Your task to perform on an android device: Open eBay Image 0: 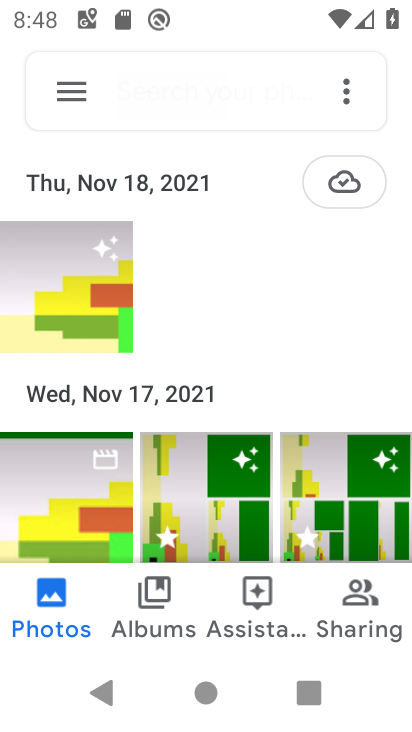
Step 0: press home button
Your task to perform on an android device: Open eBay Image 1: 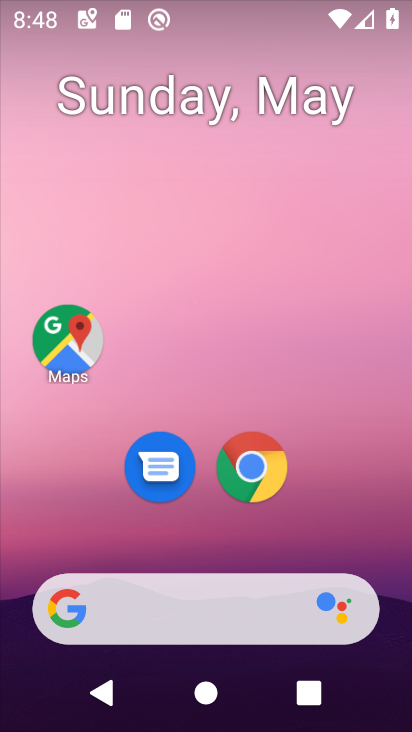
Step 1: drag from (392, 527) to (390, 117)
Your task to perform on an android device: Open eBay Image 2: 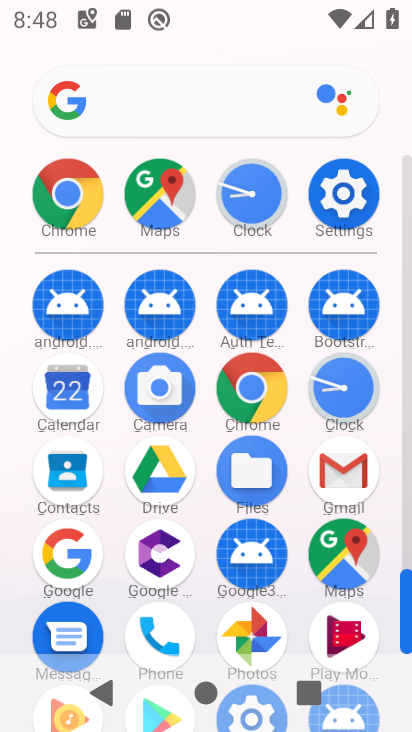
Step 2: click (28, 210)
Your task to perform on an android device: Open eBay Image 3: 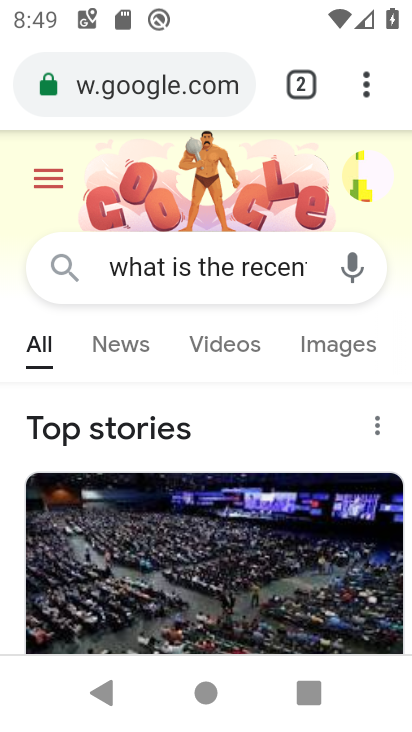
Step 3: click (304, 276)
Your task to perform on an android device: Open eBay Image 4: 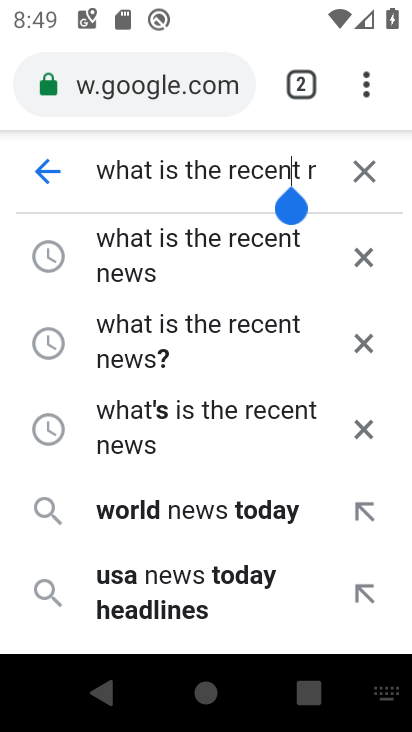
Step 4: click (214, 73)
Your task to perform on an android device: Open eBay Image 5: 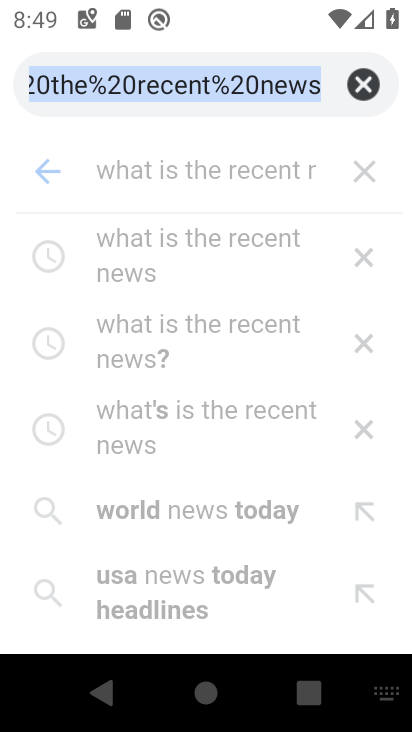
Step 5: click (363, 85)
Your task to perform on an android device: Open eBay Image 6: 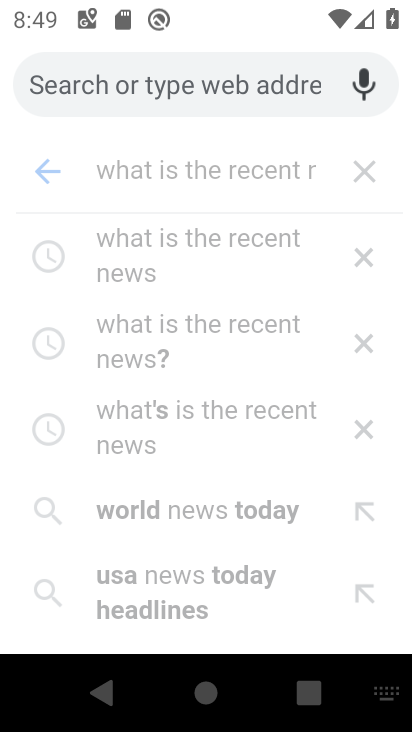
Step 6: type "ebay"
Your task to perform on an android device: Open eBay Image 7: 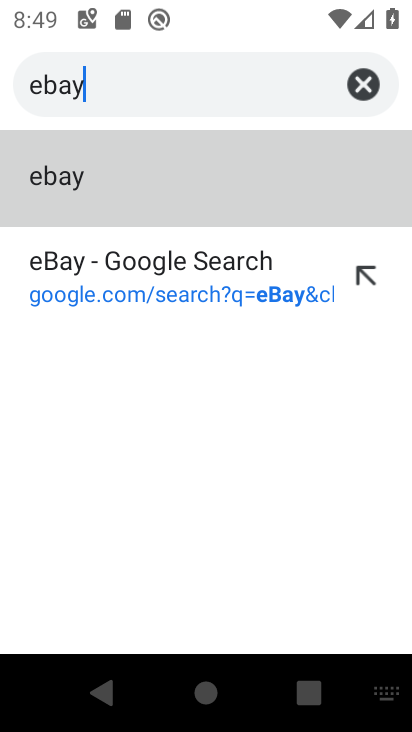
Step 7: click (94, 193)
Your task to perform on an android device: Open eBay Image 8: 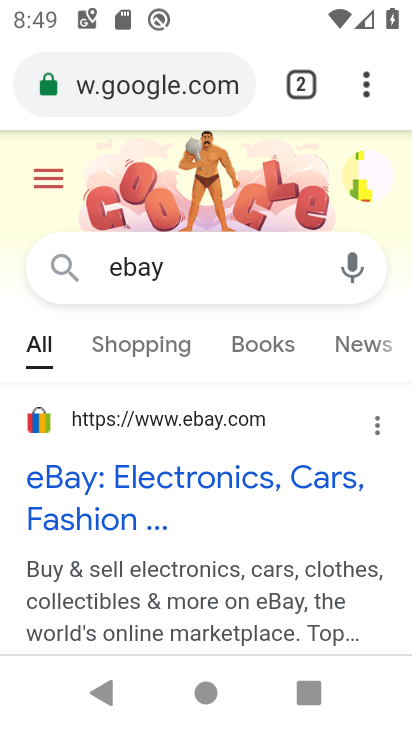
Step 8: click (213, 482)
Your task to perform on an android device: Open eBay Image 9: 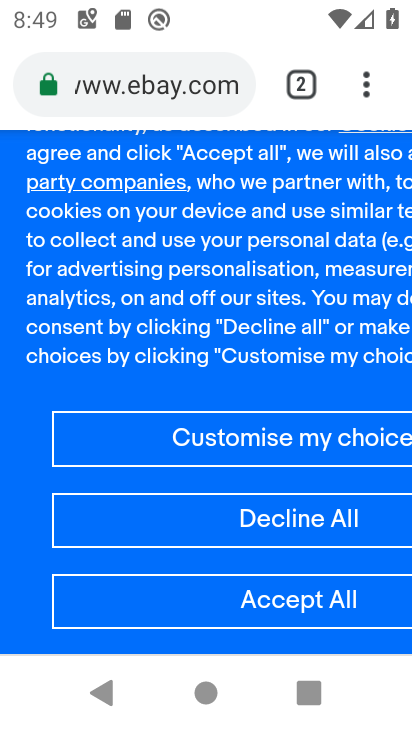
Step 9: task complete